Your task to perform on an android device: turn on wifi Image 0: 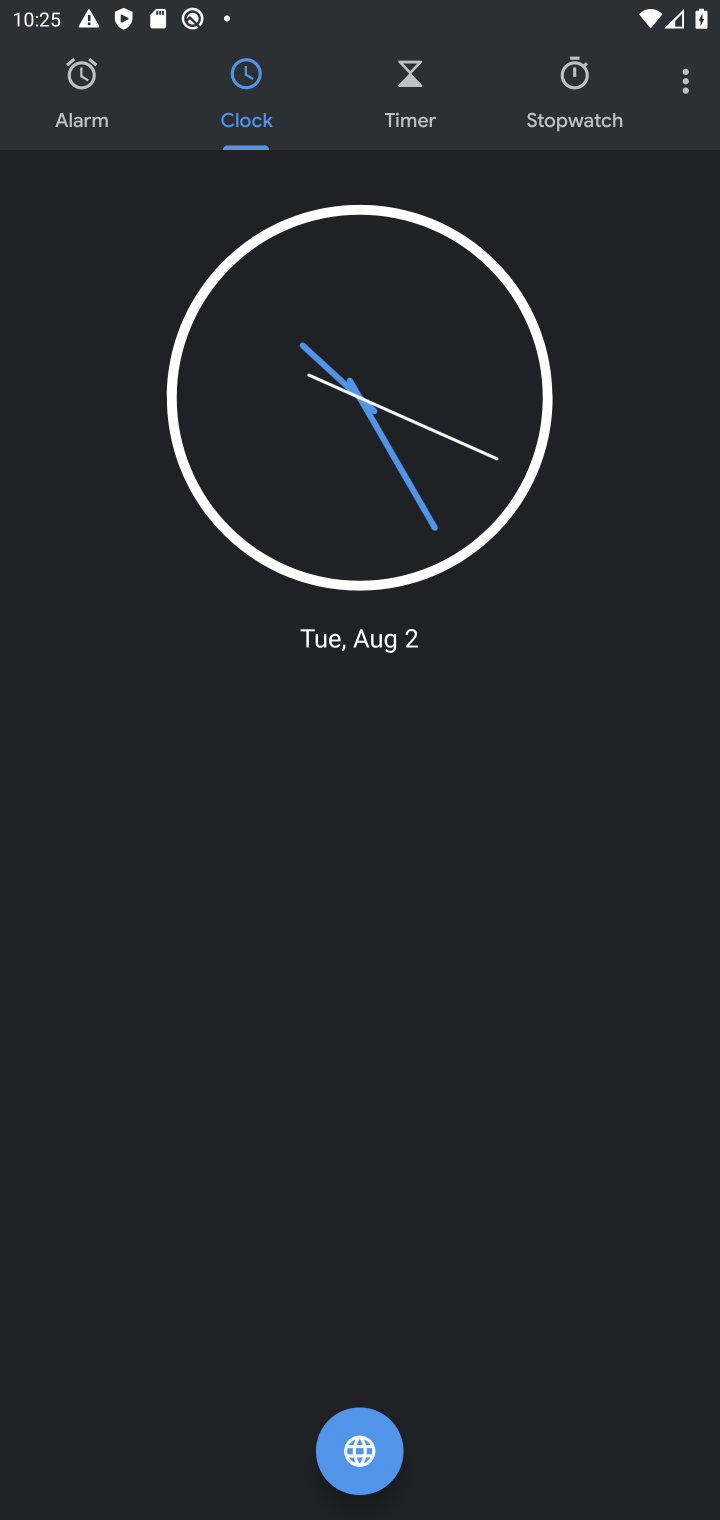
Step 0: press home button
Your task to perform on an android device: turn on wifi Image 1: 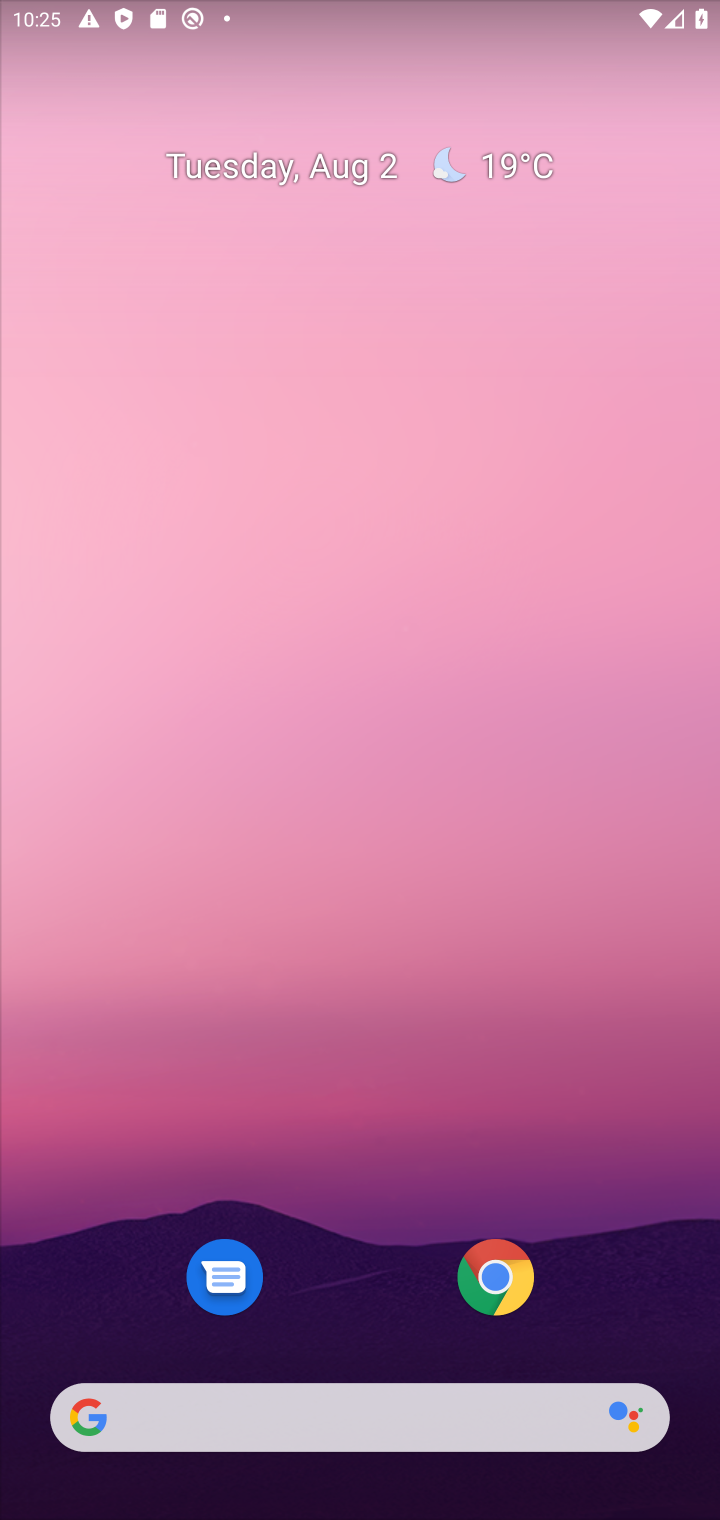
Step 1: task complete